Your task to perform on an android device: set an alarm Image 0: 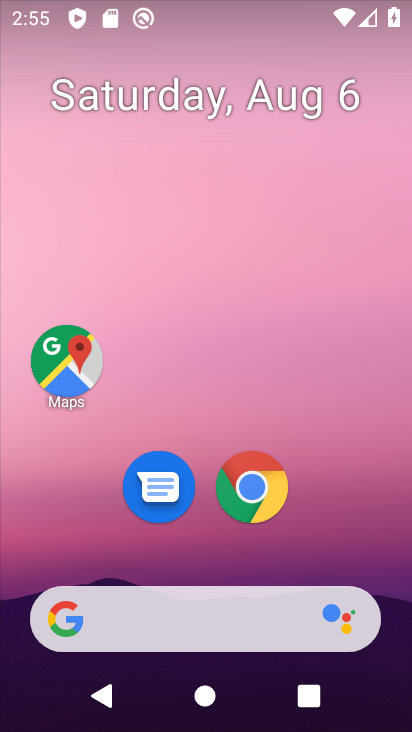
Step 0: drag from (196, 628) to (227, 55)
Your task to perform on an android device: set an alarm Image 1: 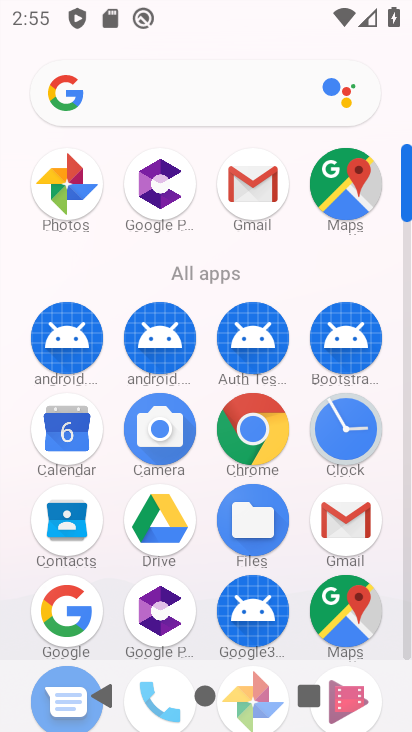
Step 1: click (342, 422)
Your task to perform on an android device: set an alarm Image 2: 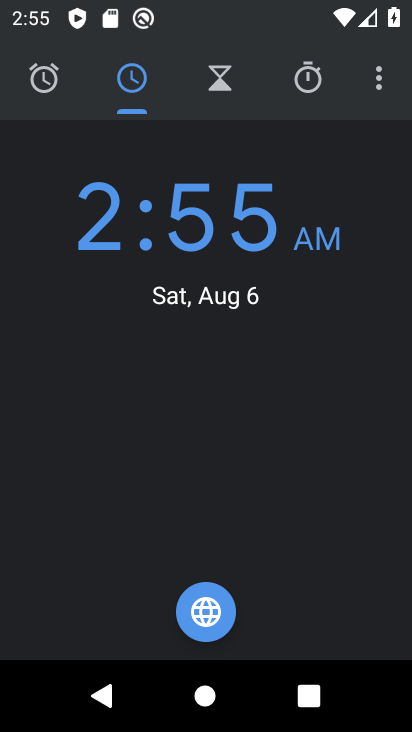
Step 2: click (44, 83)
Your task to perform on an android device: set an alarm Image 3: 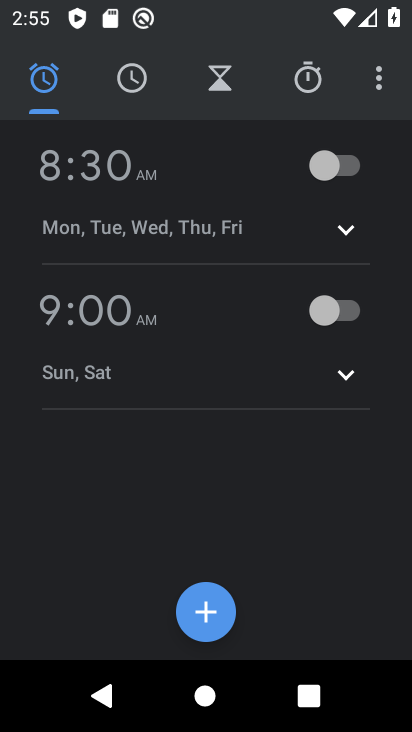
Step 3: click (208, 622)
Your task to perform on an android device: set an alarm Image 4: 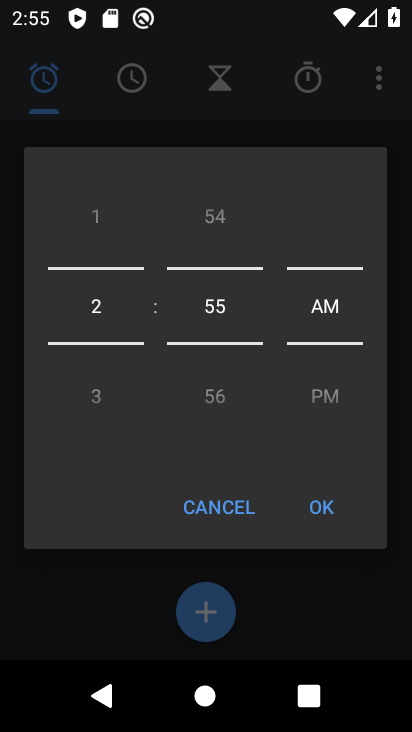
Step 4: drag from (90, 402) to (81, 184)
Your task to perform on an android device: set an alarm Image 5: 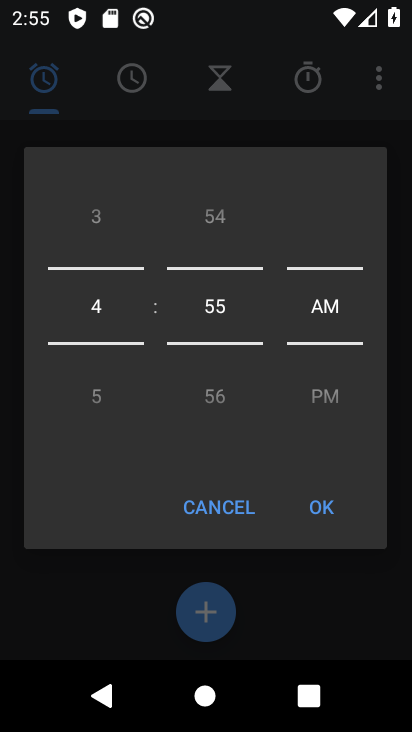
Step 5: click (320, 514)
Your task to perform on an android device: set an alarm Image 6: 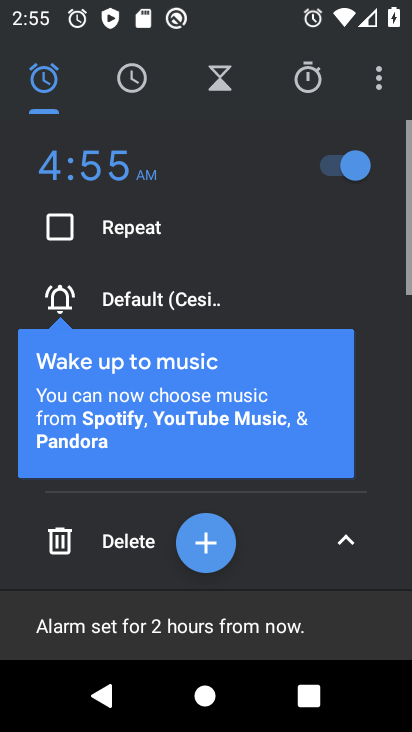
Step 6: task complete